Your task to perform on an android device: turn on improve location accuracy Image 0: 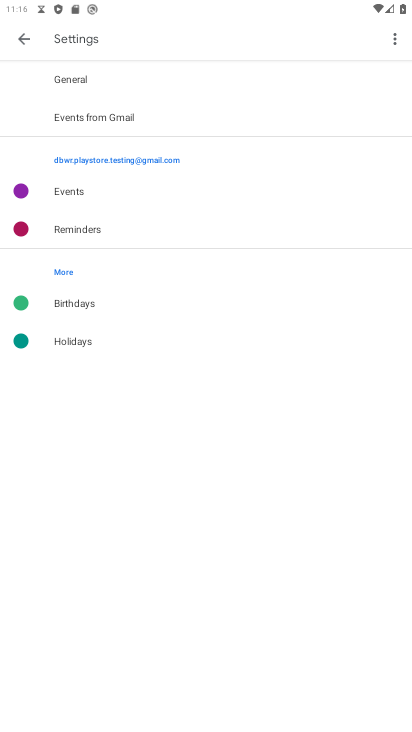
Step 0: press home button
Your task to perform on an android device: turn on improve location accuracy Image 1: 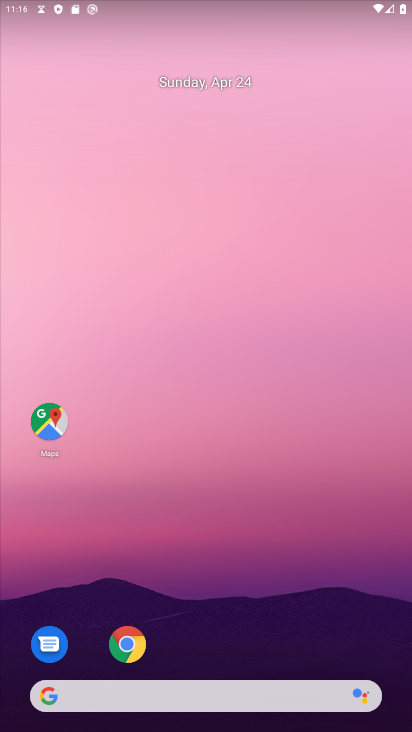
Step 1: drag from (366, 626) to (358, 13)
Your task to perform on an android device: turn on improve location accuracy Image 2: 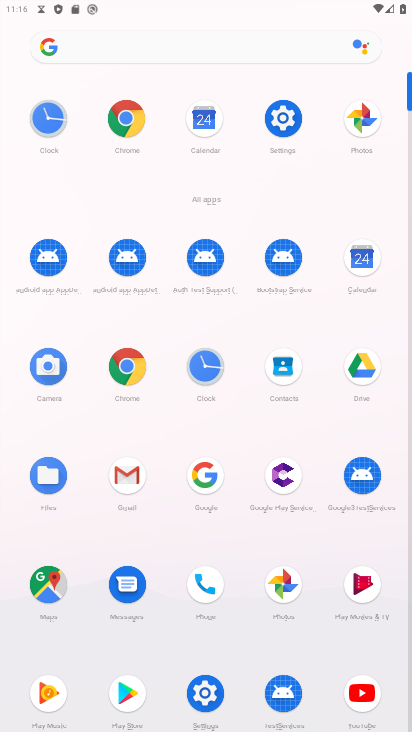
Step 2: click (278, 125)
Your task to perform on an android device: turn on improve location accuracy Image 3: 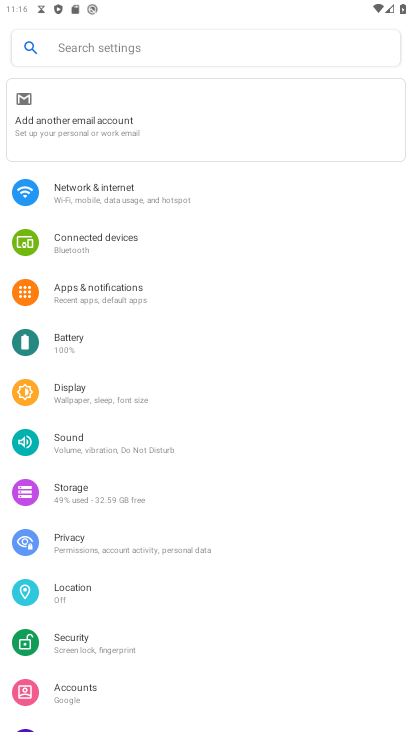
Step 3: click (60, 589)
Your task to perform on an android device: turn on improve location accuracy Image 4: 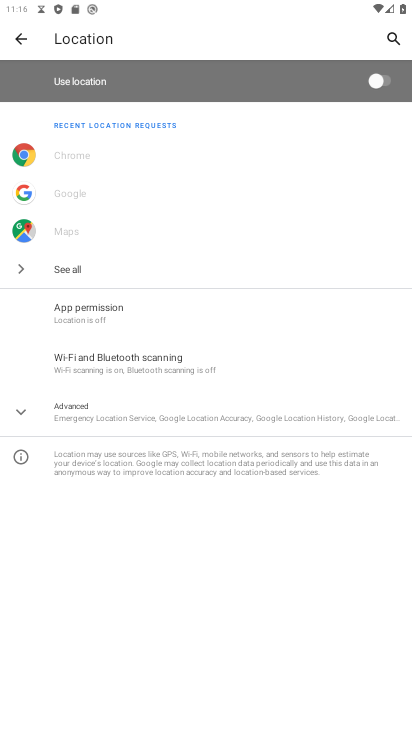
Step 4: click (25, 415)
Your task to perform on an android device: turn on improve location accuracy Image 5: 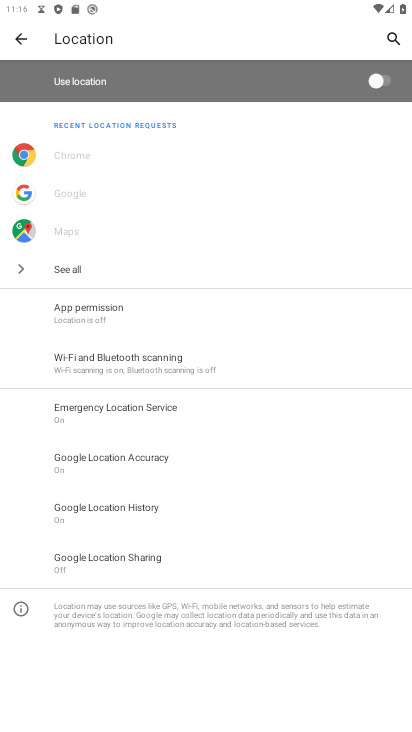
Step 5: click (104, 458)
Your task to perform on an android device: turn on improve location accuracy Image 6: 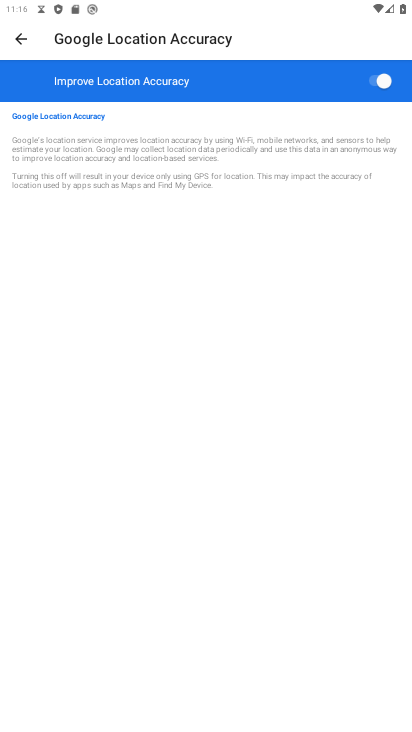
Step 6: task complete